Your task to perform on an android device: turn off location Image 0: 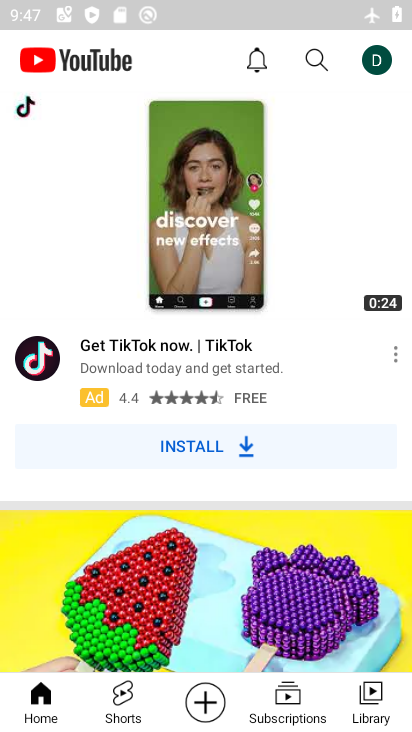
Step 0: press home button
Your task to perform on an android device: turn off location Image 1: 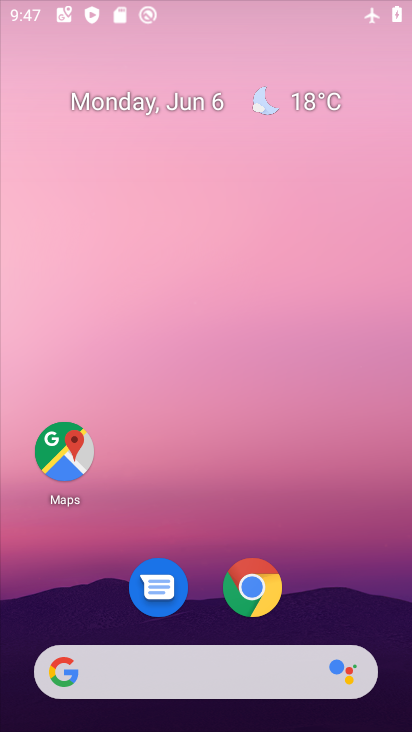
Step 1: drag from (334, 513) to (287, 86)
Your task to perform on an android device: turn off location Image 2: 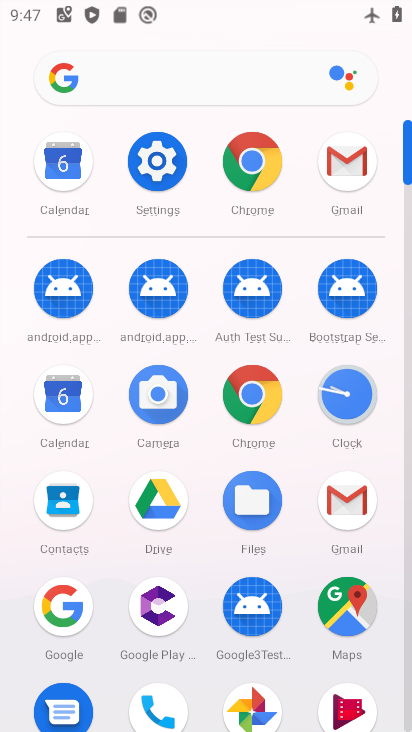
Step 2: click (171, 166)
Your task to perform on an android device: turn off location Image 3: 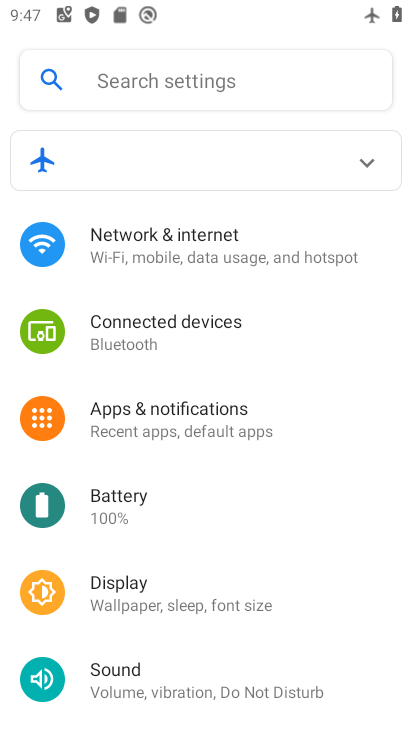
Step 3: drag from (278, 652) to (291, 191)
Your task to perform on an android device: turn off location Image 4: 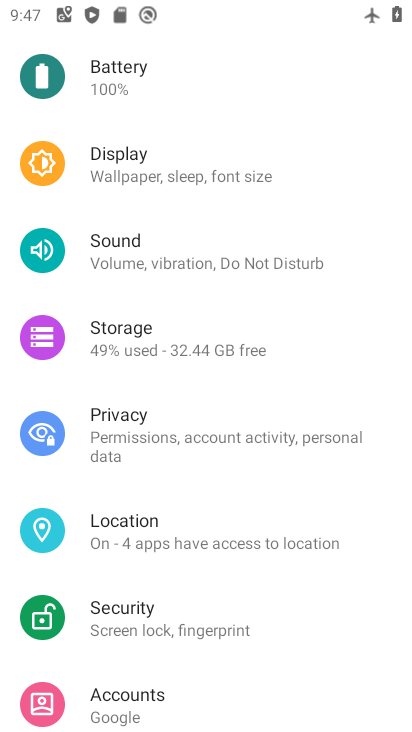
Step 4: click (150, 527)
Your task to perform on an android device: turn off location Image 5: 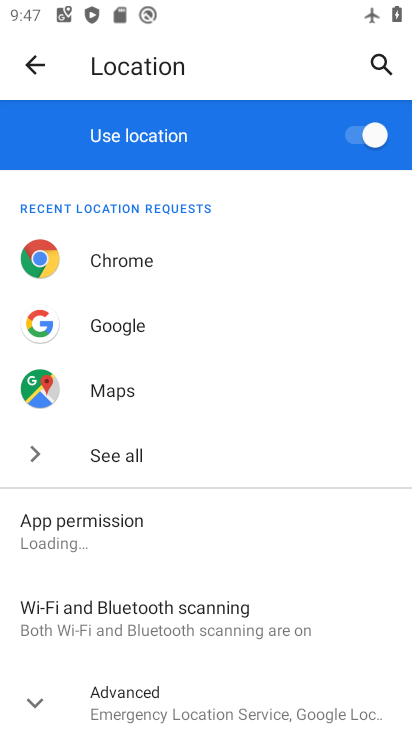
Step 5: click (353, 146)
Your task to perform on an android device: turn off location Image 6: 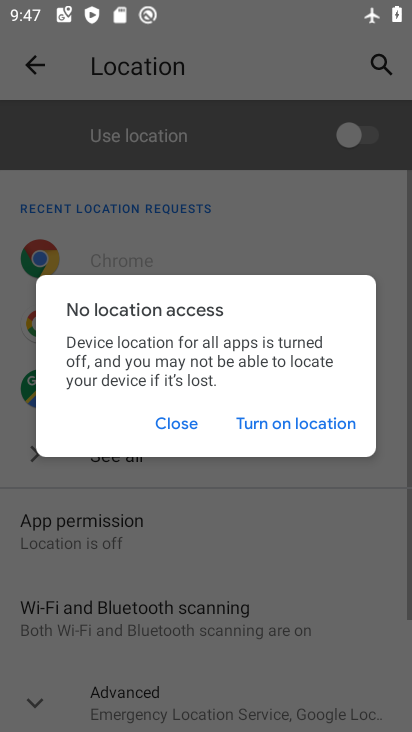
Step 6: task complete